Your task to perform on an android device: turn on location history Image 0: 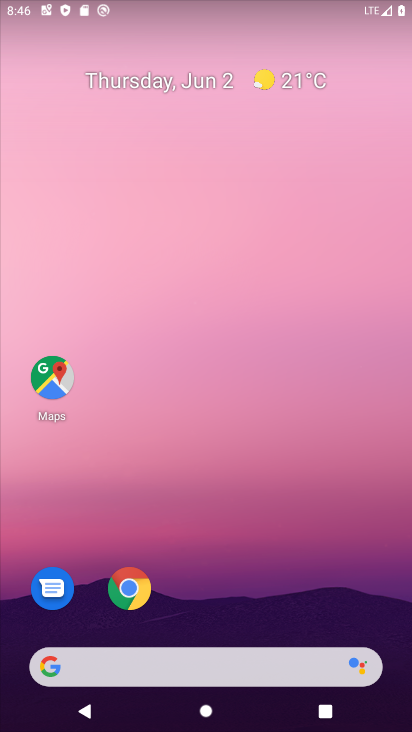
Step 0: drag from (189, 631) to (202, 333)
Your task to perform on an android device: turn on location history Image 1: 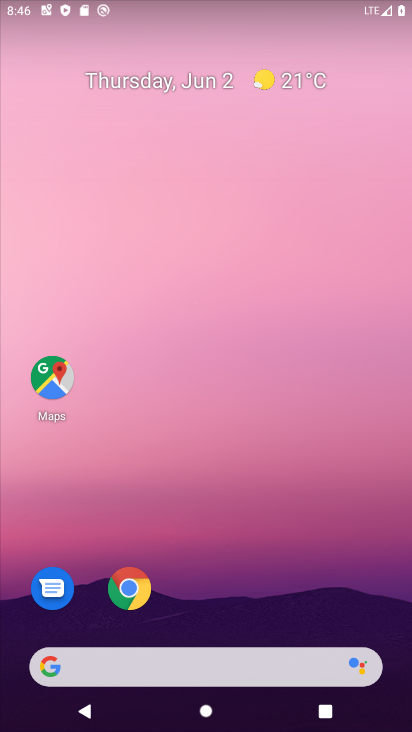
Step 1: drag from (268, 618) to (272, 235)
Your task to perform on an android device: turn on location history Image 2: 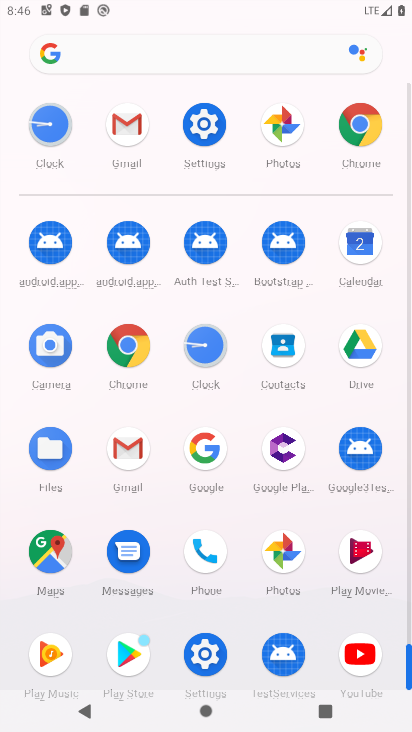
Step 2: click (216, 157)
Your task to perform on an android device: turn on location history Image 3: 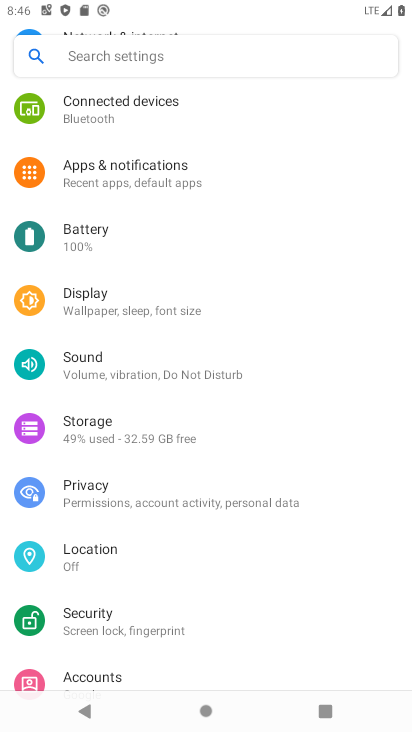
Step 3: drag from (183, 491) to (196, 379)
Your task to perform on an android device: turn on location history Image 4: 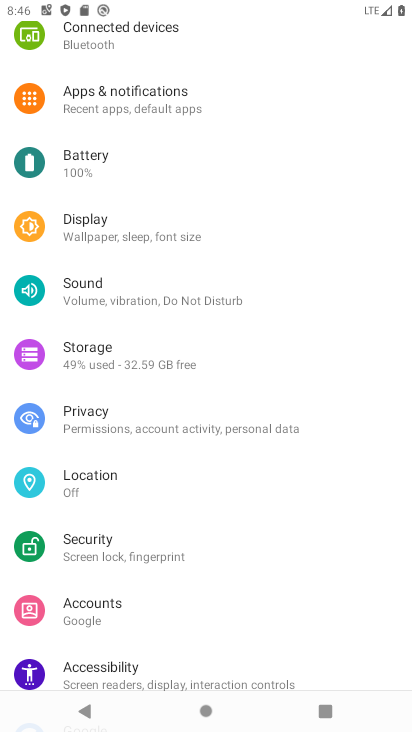
Step 4: click (111, 487)
Your task to perform on an android device: turn on location history Image 5: 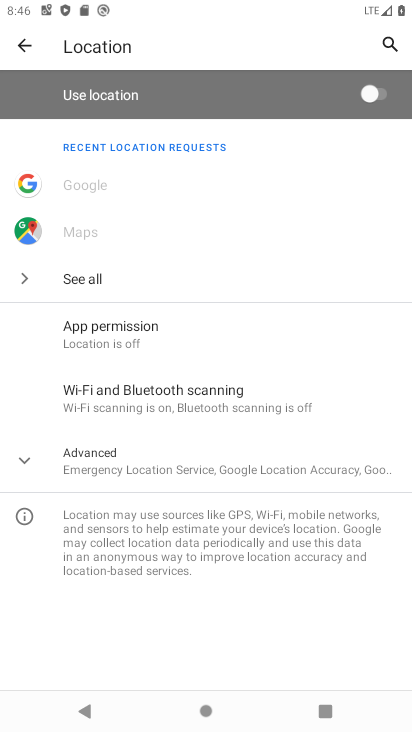
Step 5: click (128, 456)
Your task to perform on an android device: turn on location history Image 6: 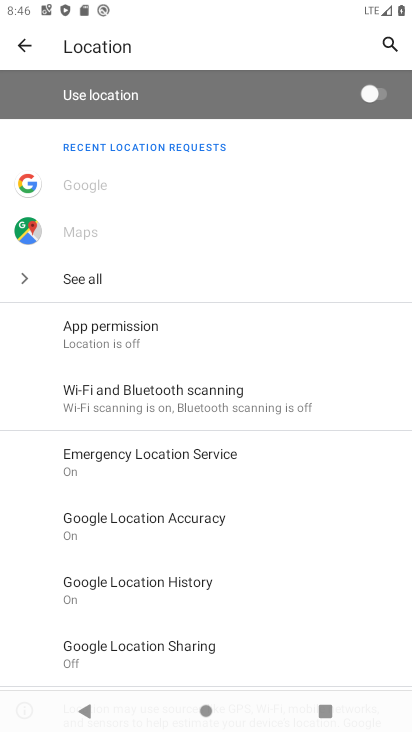
Step 6: click (196, 589)
Your task to perform on an android device: turn on location history Image 7: 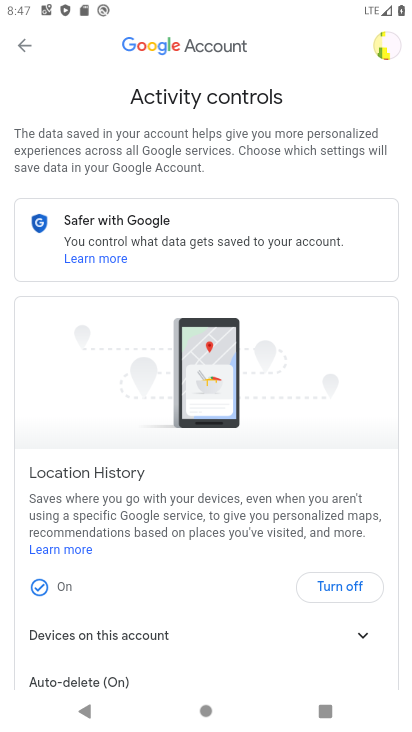
Step 7: task complete